Your task to perform on an android device: Open calendar and show me the second week of next month Image 0: 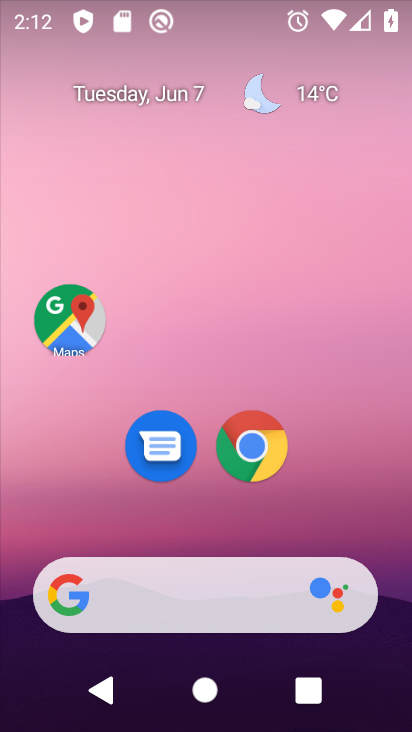
Step 0: drag from (397, 607) to (337, 154)
Your task to perform on an android device: Open calendar and show me the second week of next month Image 1: 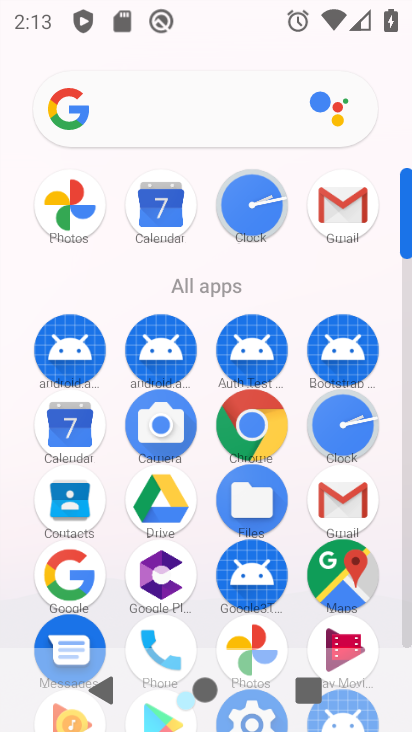
Step 1: click (409, 627)
Your task to perform on an android device: Open calendar and show me the second week of next month Image 2: 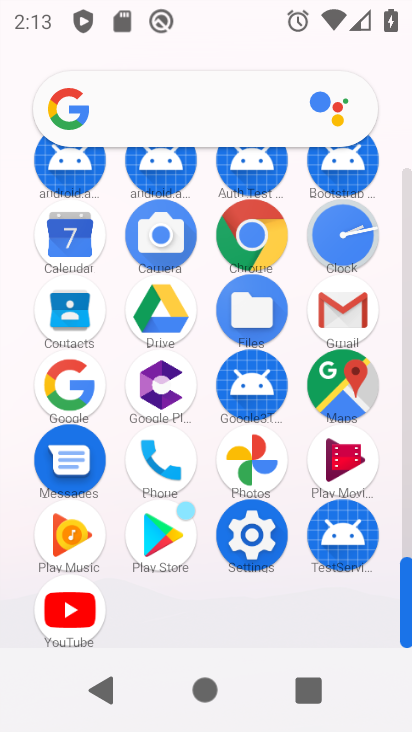
Step 2: click (66, 237)
Your task to perform on an android device: Open calendar and show me the second week of next month Image 3: 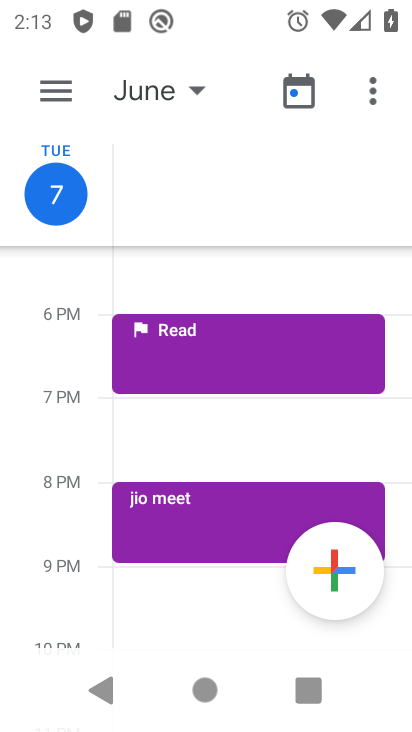
Step 3: click (58, 87)
Your task to perform on an android device: Open calendar and show me the second week of next month Image 4: 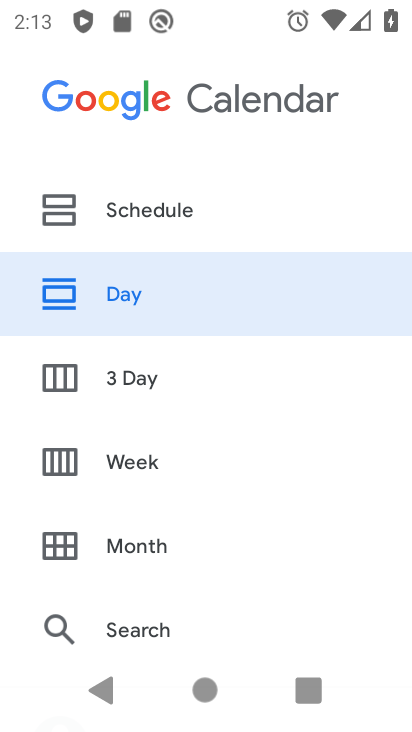
Step 4: click (134, 459)
Your task to perform on an android device: Open calendar and show me the second week of next month Image 5: 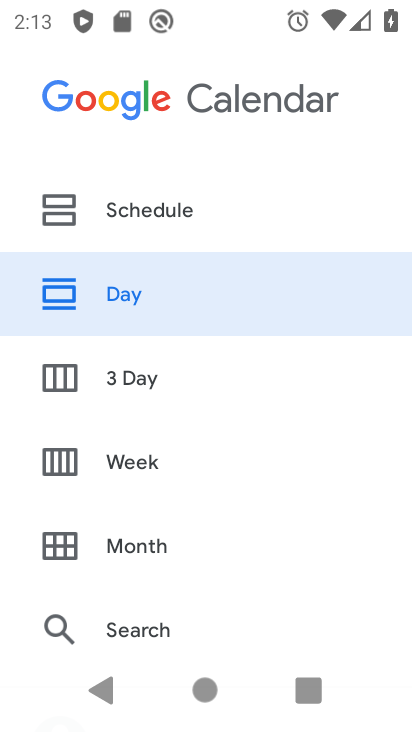
Step 5: click (138, 460)
Your task to perform on an android device: Open calendar and show me the second week of next month Image 6: 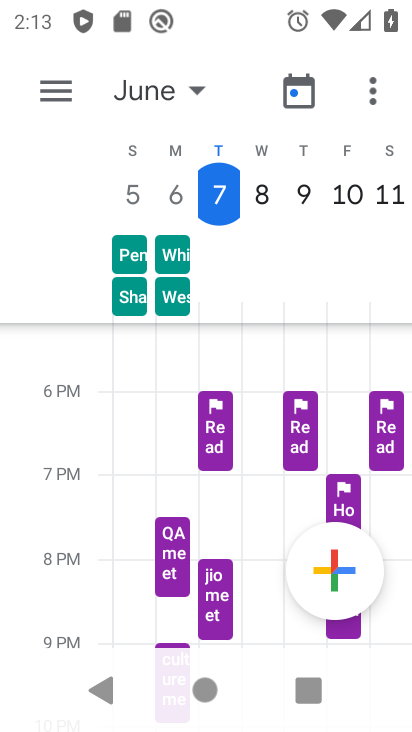
Step 6: click (194, 93)
Your task to perform on an android device: Open calendar and show me the second week of next month Image 7: 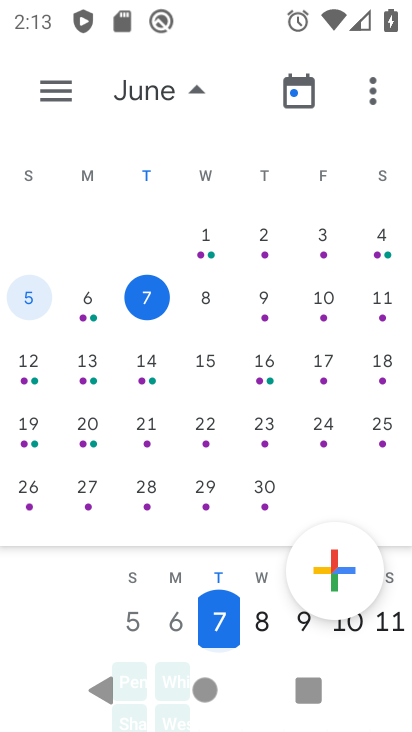
Step 7: drag from (381, 403) to (21, 379)
Your task to perform on an android device: Open calendar and show me the second week of next month Image 8: 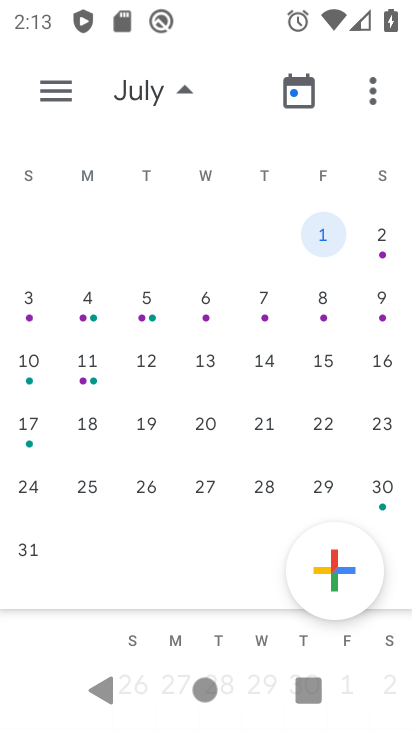
Step 8: click (31, 366)
Your task to perform on an android device: Open calendar and show me the second week of next month Image 9: 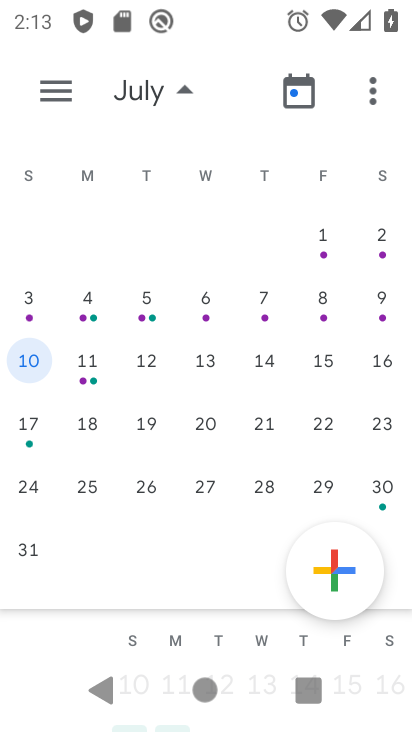
Step 9: drag from (231, 593) to (167, 198)
Your task to perform on an android device: Open calendar and show me the second week of next month Image 10: 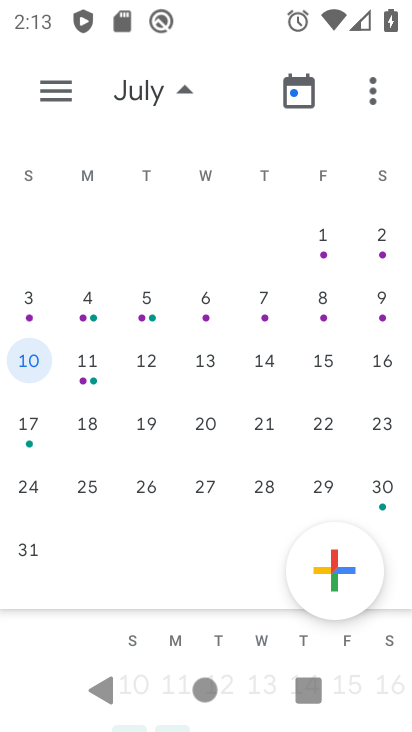
Step 10: drag from (200, 609) to (168, 186)
Your task to perform on an android device: Open calendar and show me the second week of next month Image 11: 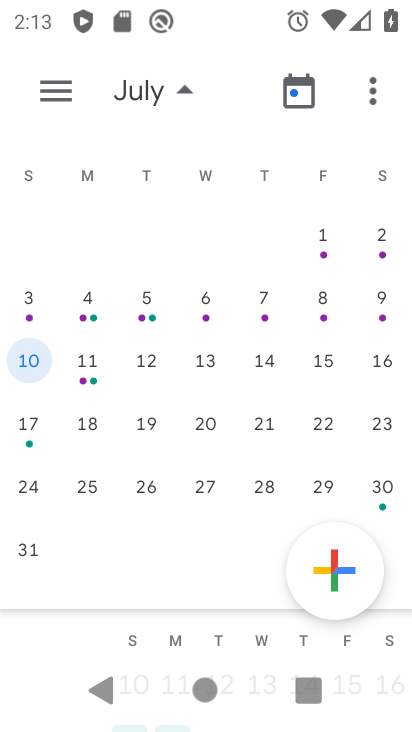
Step 11: click (188, 89)
Your task to perform on an android device: Open calendar and show me the second week of next month Image 12: 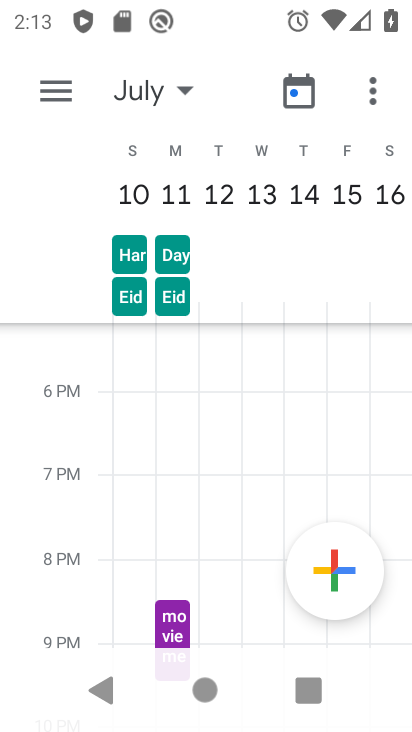
Step 12: task complete